Your task to perform on an android device: turn off notifications settings in the gmail app Image 0: 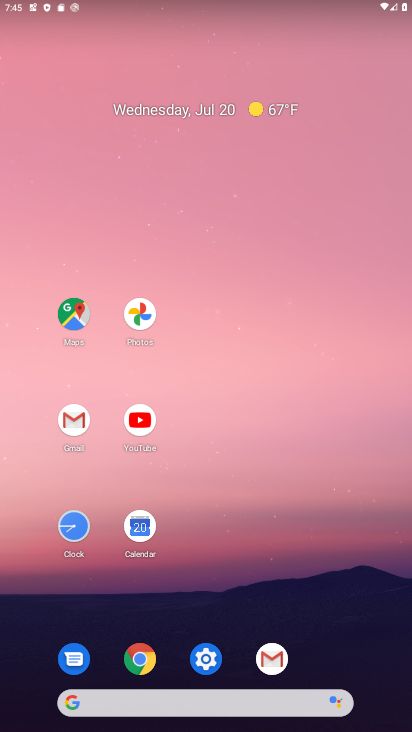
Step 0: click (277, 665)
Your task to perform on an android device: turn off notifications settings in the gmail app Image 1: 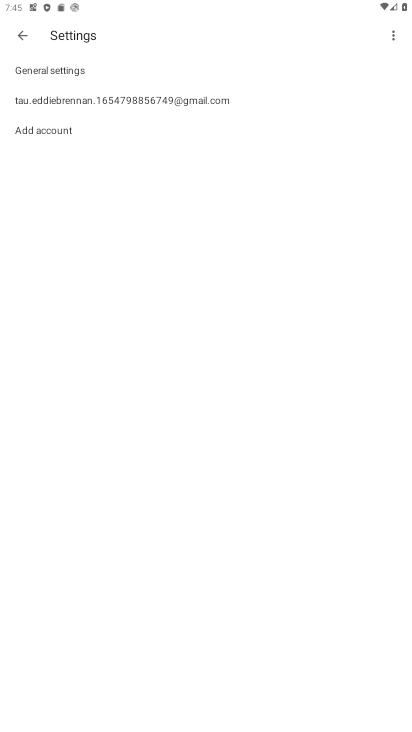
Step 1: click (59, 71)
Your task to perform on an android device: turn off notifications settings in the gmail app Image 2: 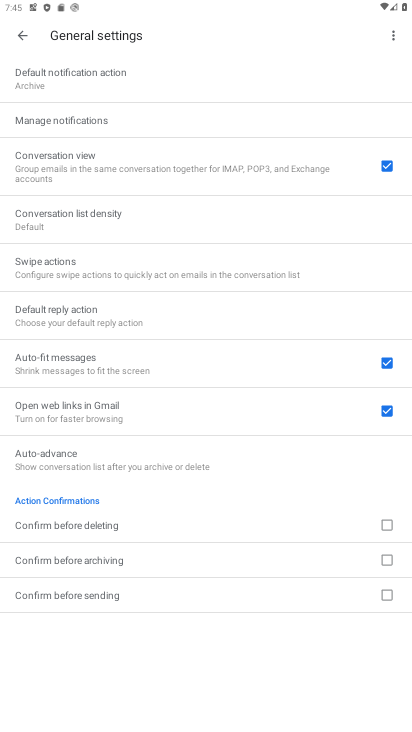
Step 2: click (113, 120)
Your task to perform on an android device: turn off notifications settings in the gmail app Image 3: 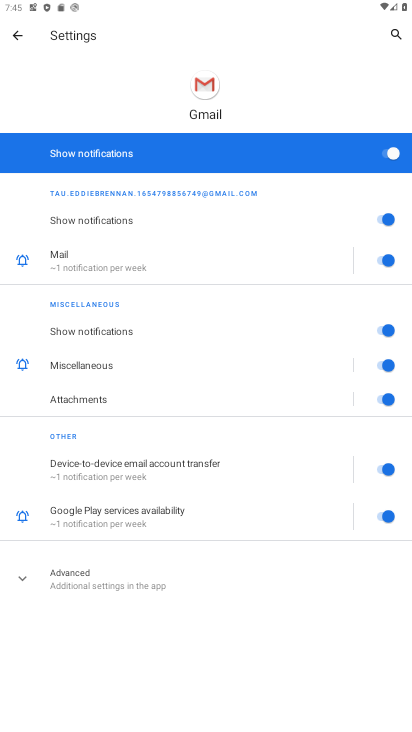
Step 3: click (388, 158)
Your task to perform on an android device: turn off notifications settings in the gmail app Image 4: 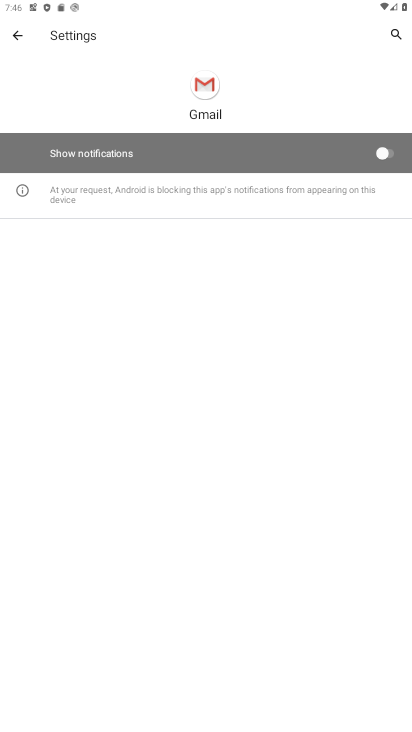
Step 4: task complete